Your task to perform on an android device: clear all cookies in the chrome app Image 0: 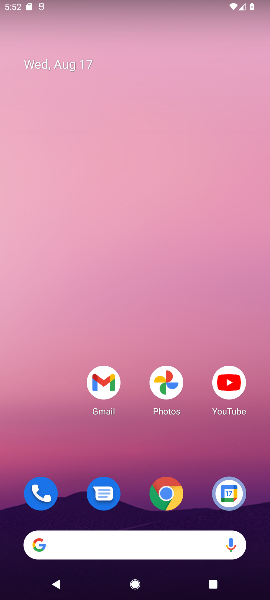
Step 0: press home button
Your task to perform on an android device: clear all cookies in the chrome app Image 1: 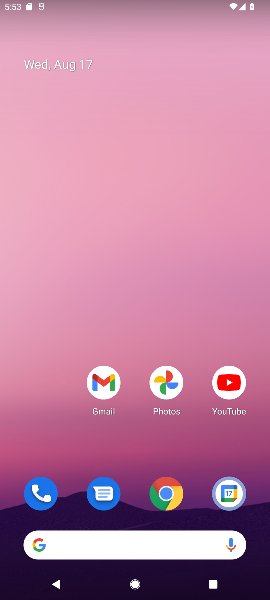
Step 1: click (174, 506)
Your task to perform on an android device: clear all cookies in the chrome app Image 2: 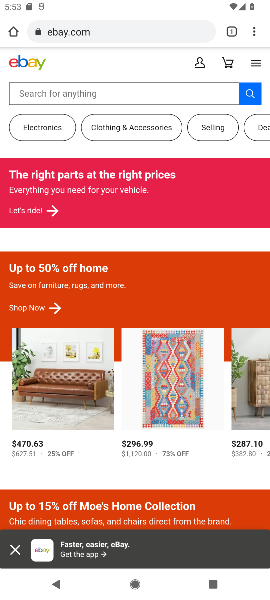
Step 2: drag from (254, 32) to (171, 408)
Your task to perform on an android device: clear all cookies in the chrome app Image 3: 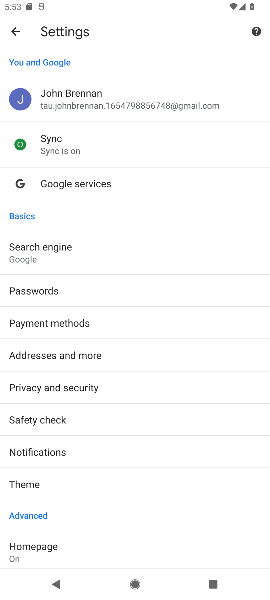
Step 3: click (52, 392)
Your task to perform on an android device: clear all cookies in the chrome app Image 4: 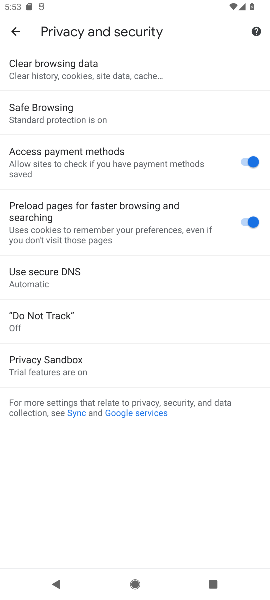
Step 4: click (68, 66)
Your task to perform on an android device: clear all cookies in the chrome app Image 5: 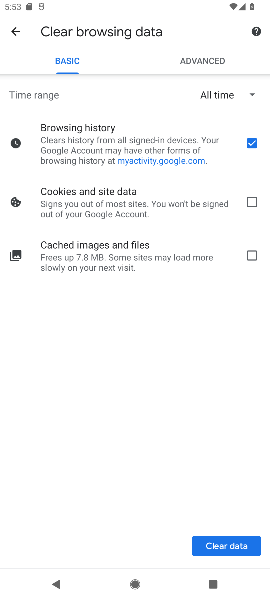
Step 5: click (255, 198)
Your task to perform on an android device: clear all cookies in the chrome app Image 6: 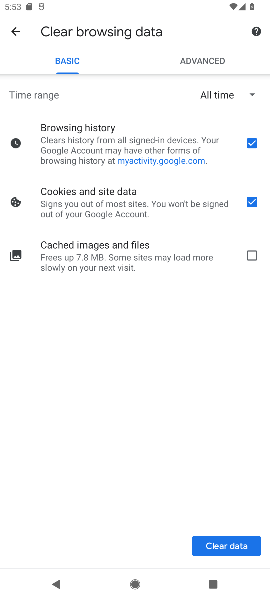
Step 6: click (257, 142)
Your task to perform on an android device: clear all cookies in the chrome app Image 7: 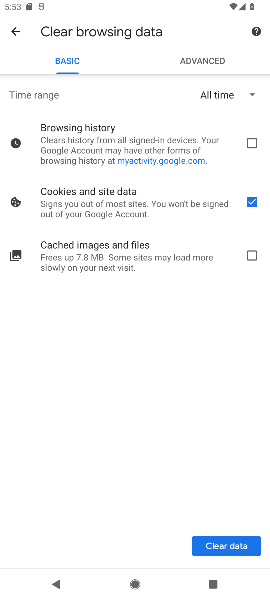
Step 7: click (234, 544)
Your task to perform on an android device: clear all cookies in the chrome app Image 8: 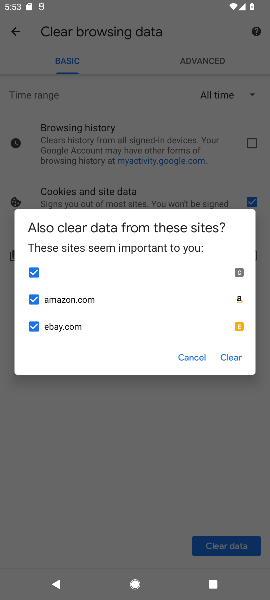
Step 8: click (244, 358)
Your task to perform on an android device: clear all cookies in the chrome app Image 9: 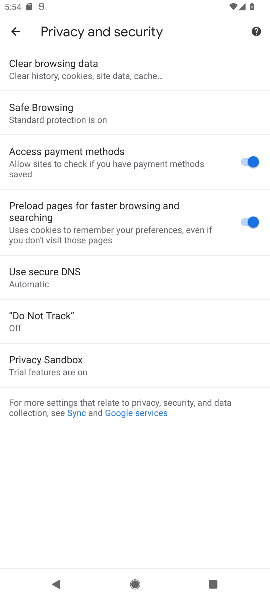
Step 9: task complete